Your task to perform on an android device: Open Amazon Image 0: 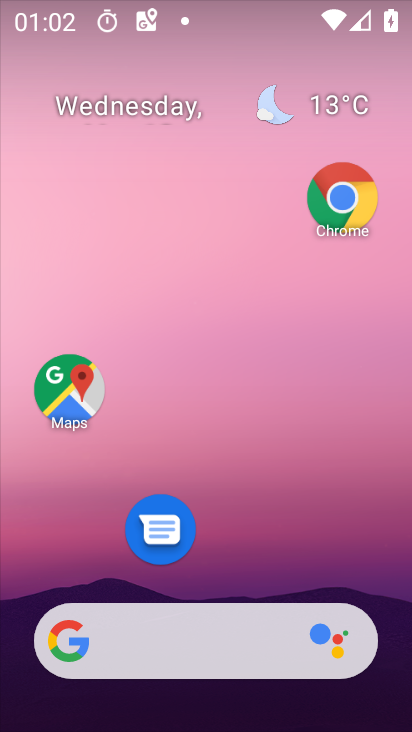
Step 0: click (342, 197)
Your task to perform on an android device: Open Amazon Image 1: 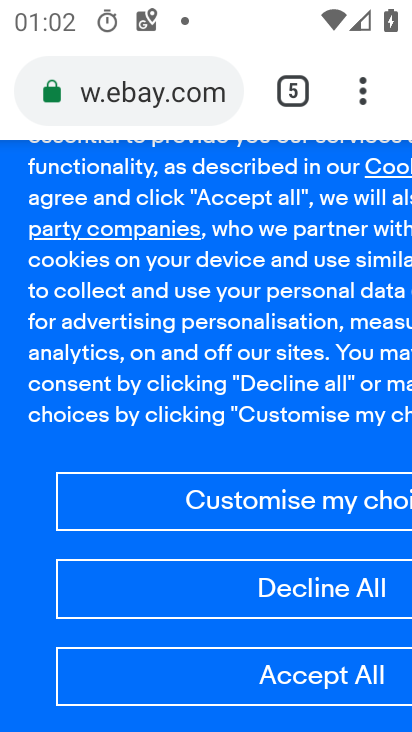
Step 1: click (281, 98)
Your task to perform on an android device: Open Amazon Image 2: 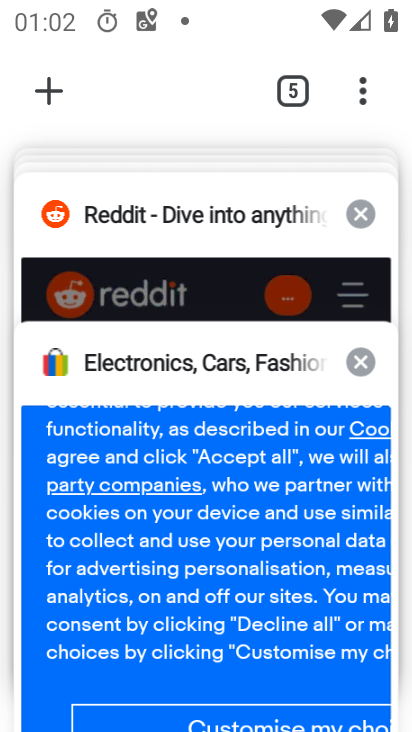
Step 2: click (45, 80)
Your task to perform on an android device: Open Amazon Image 3: 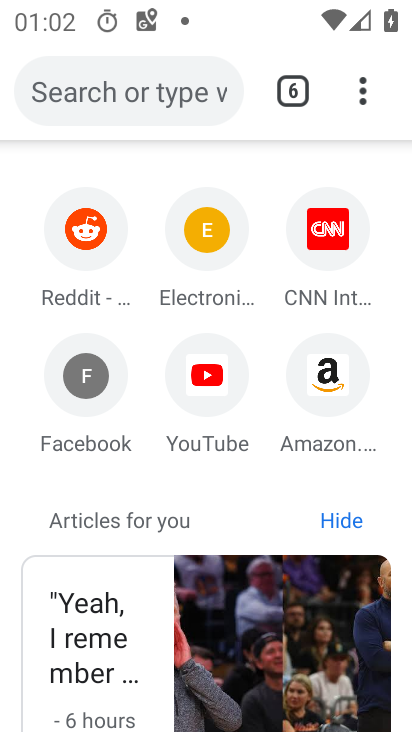
Step 3: click (341, 389)
Your task to perform on an android device: Open Amazon Image 4: 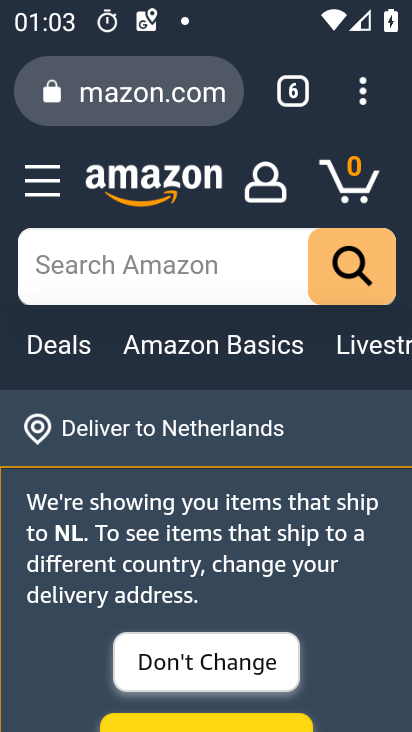
Step 4: task complete